Your task to perform on an android device: What is the news today? Image 0: 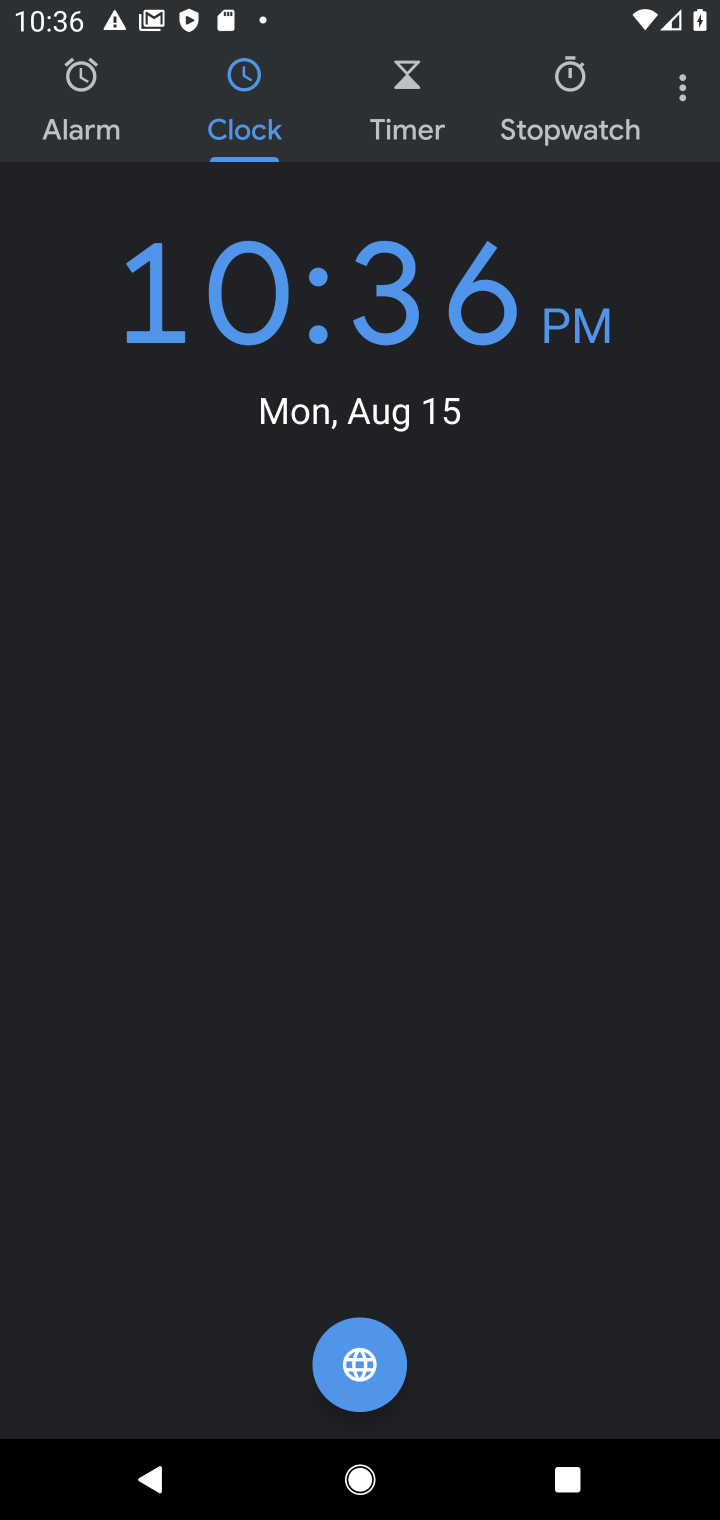
Step 0: press home button
Your task to perform on an android device: What is the news today? Image 1: 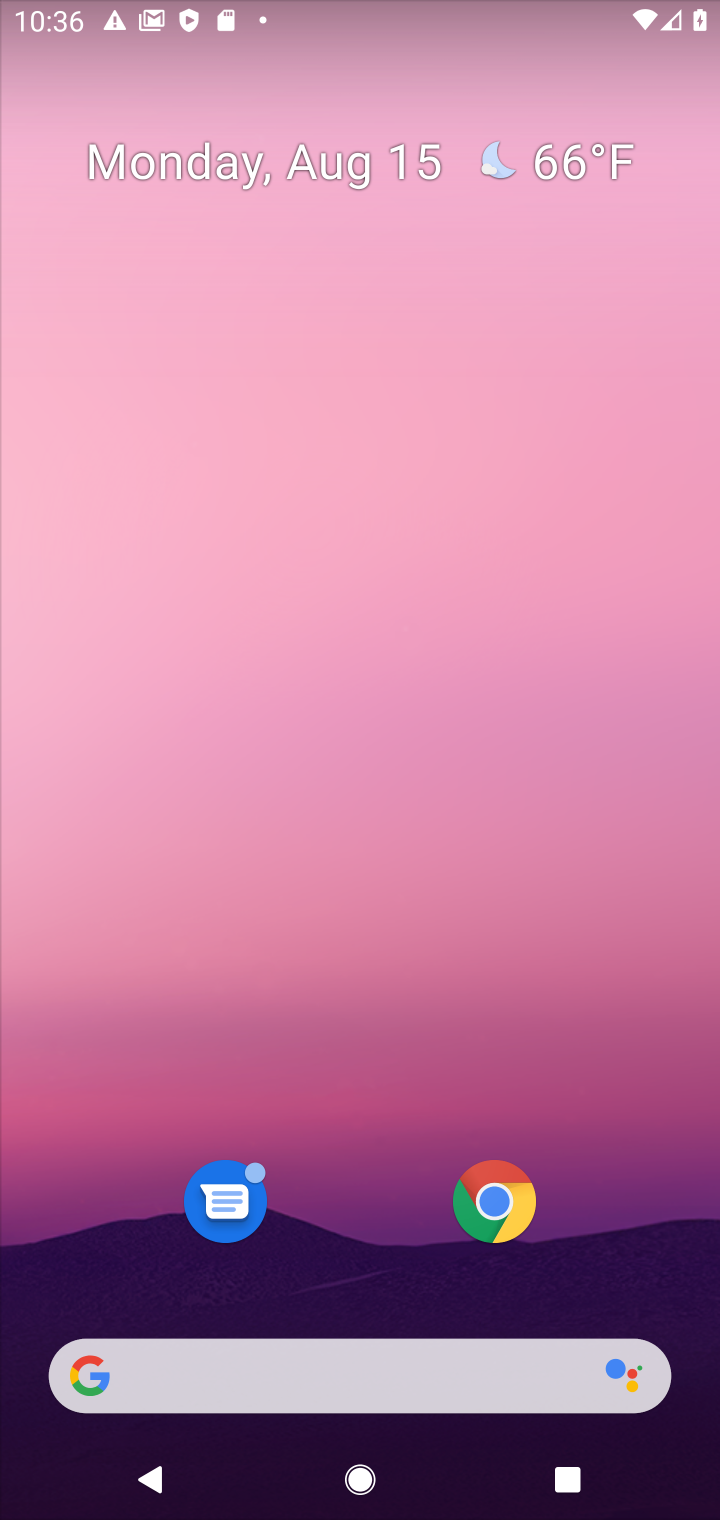
Step 1: drag from (349, 537) to (388, 304)
Your task to perform on an android device: What is the news today? Image 2: 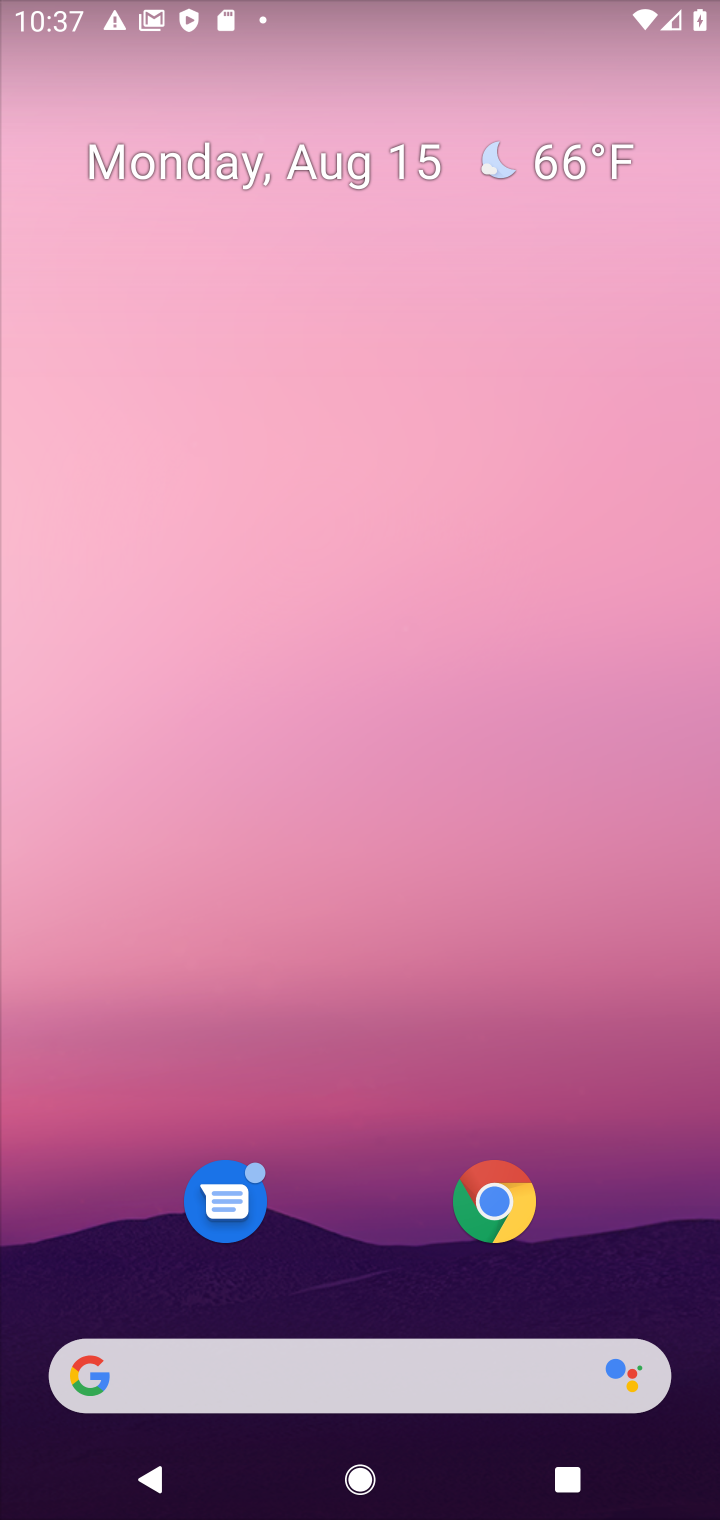
Step 2: drag from (301, 1305) to (341, 198)
Your task to perform on an android device: What is the news today? Image 3: 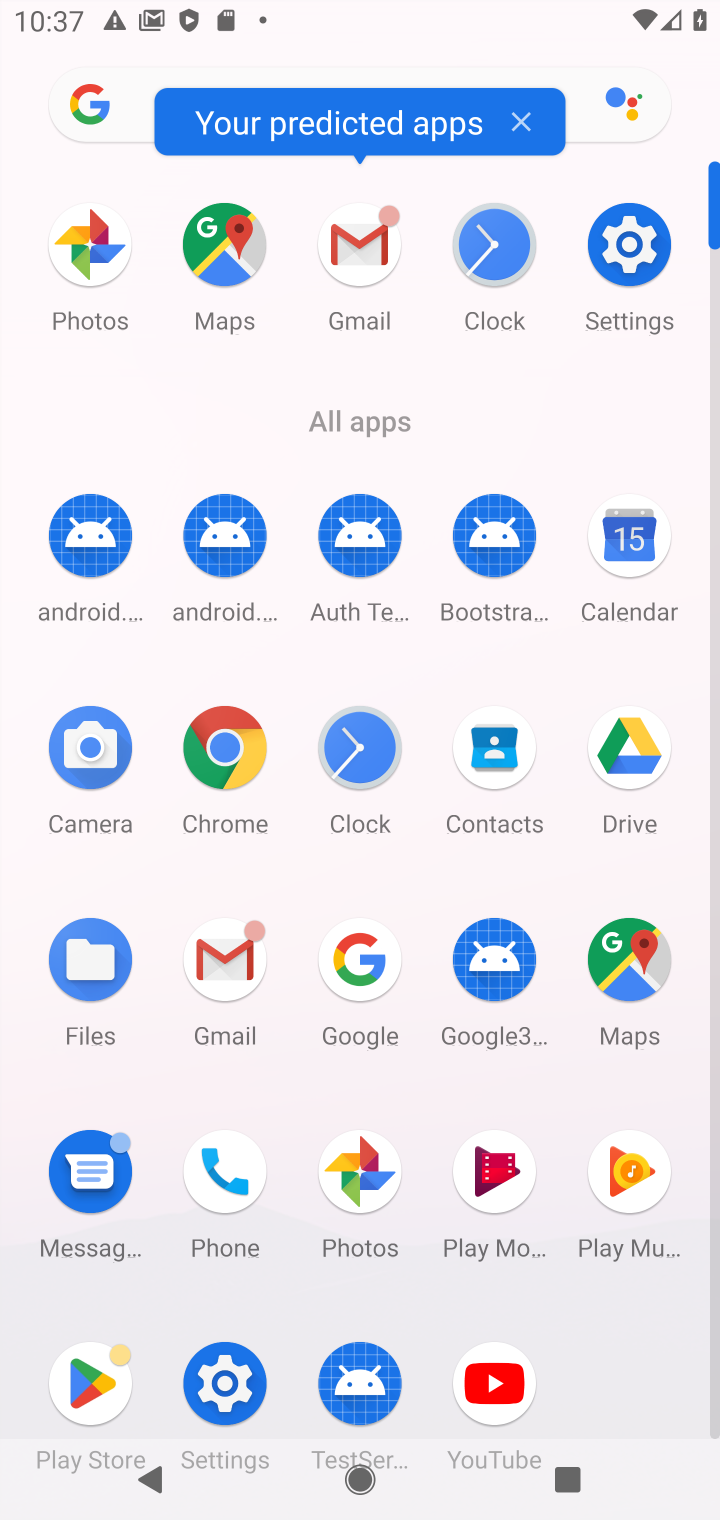
Step 3: click (365, 969)
Your task to perform on an android device: What is the news today? Image 4: 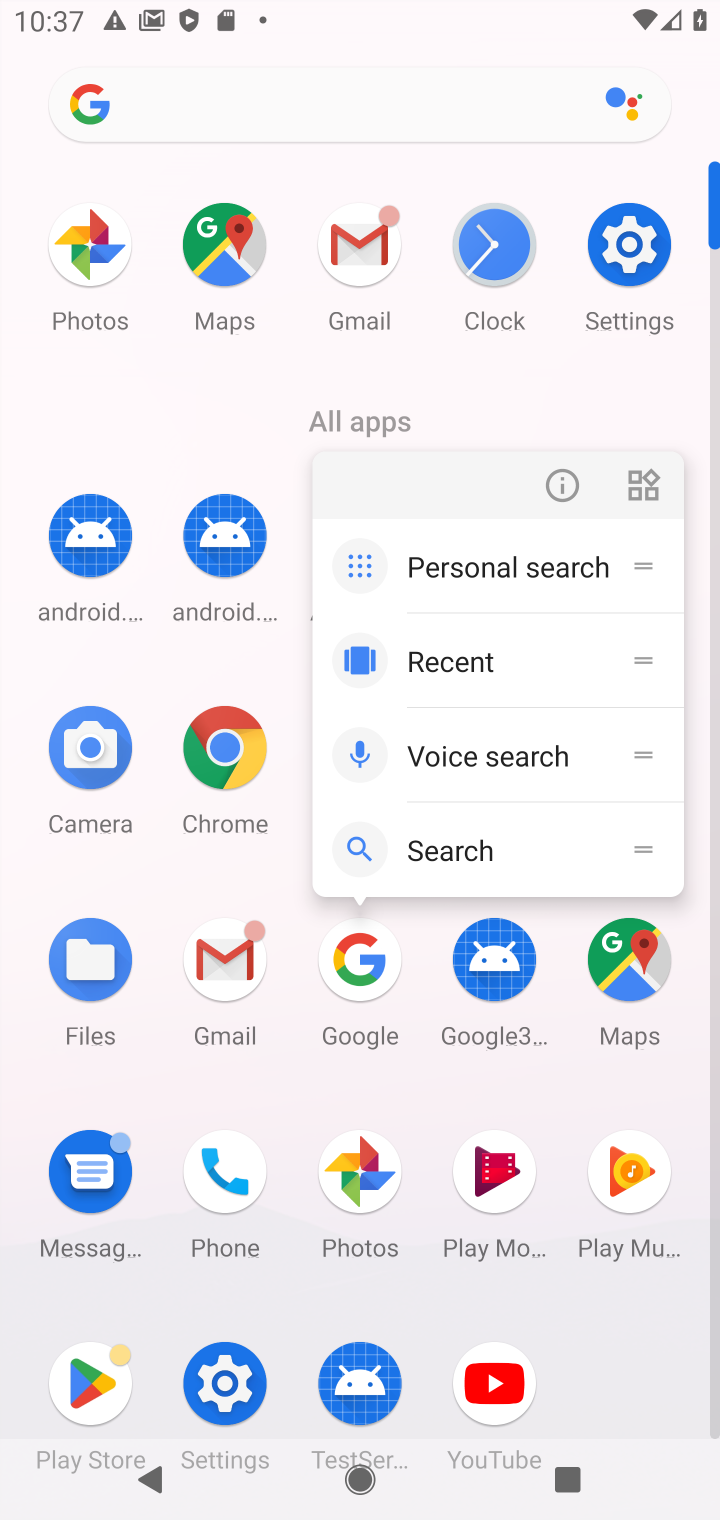
Step 4: click (351, 975)
Your task to perform on an android device: What is the news today? Image 5: 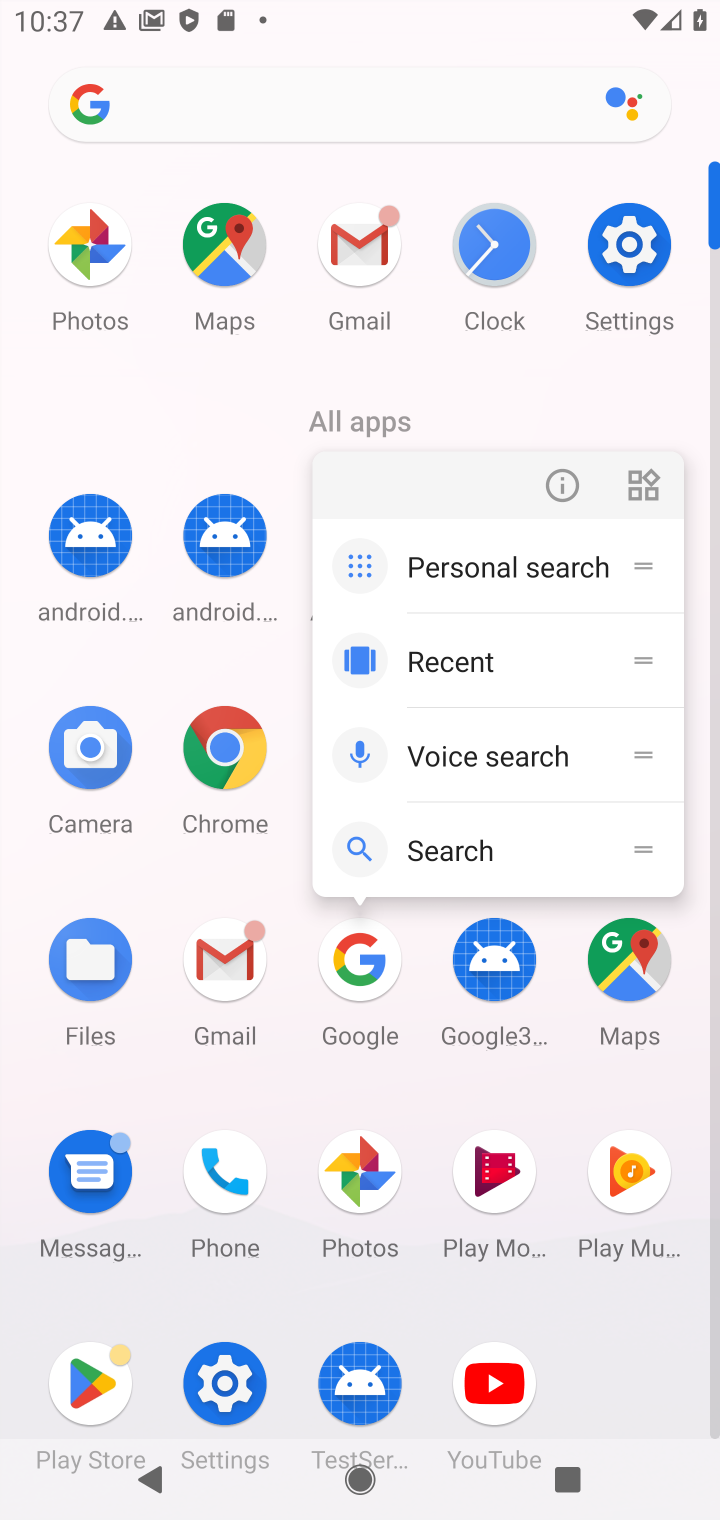
Step 5: click (351, 975)
Your task to perform on an android device: What is the news today? Image 6: 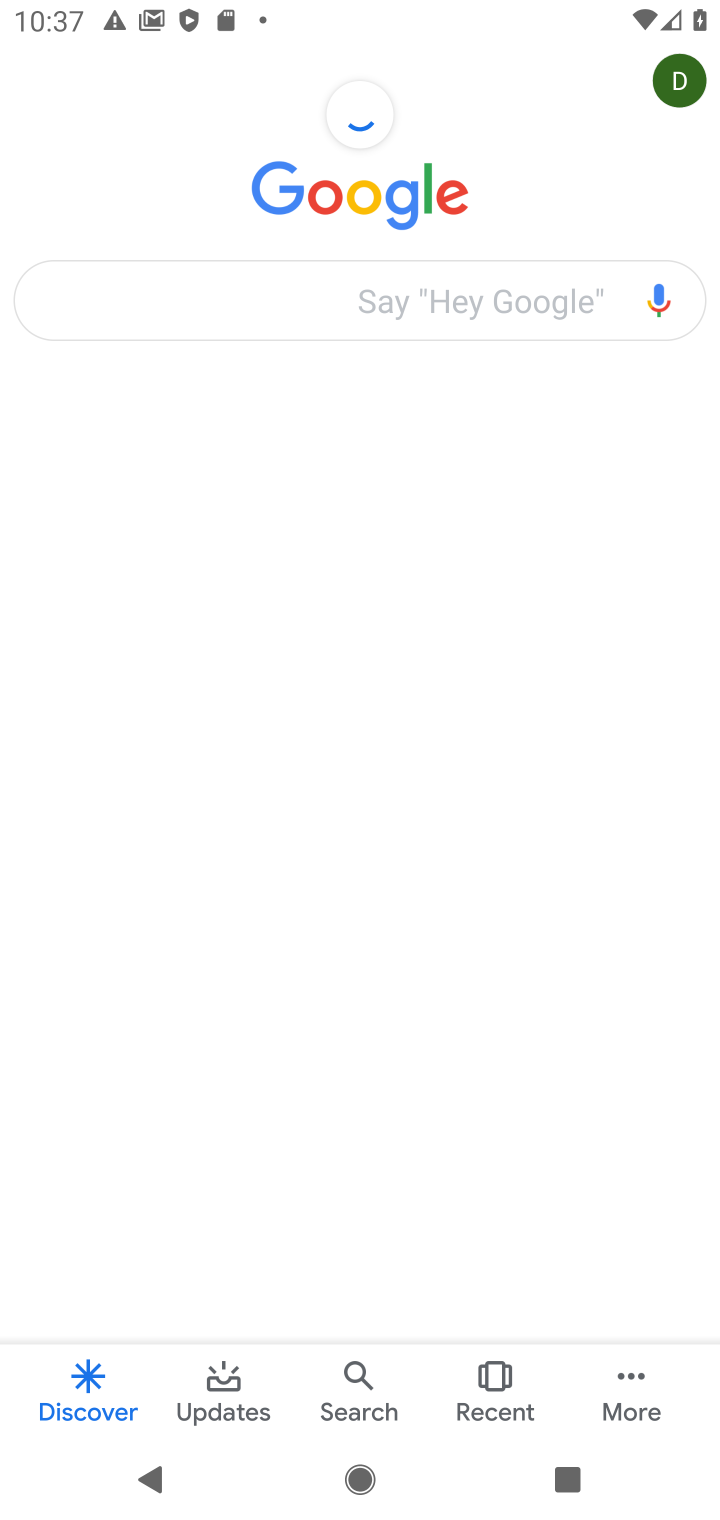
Step 6: click (319, 302)
Your task to perform on an android device: What is the news today? Image 7: 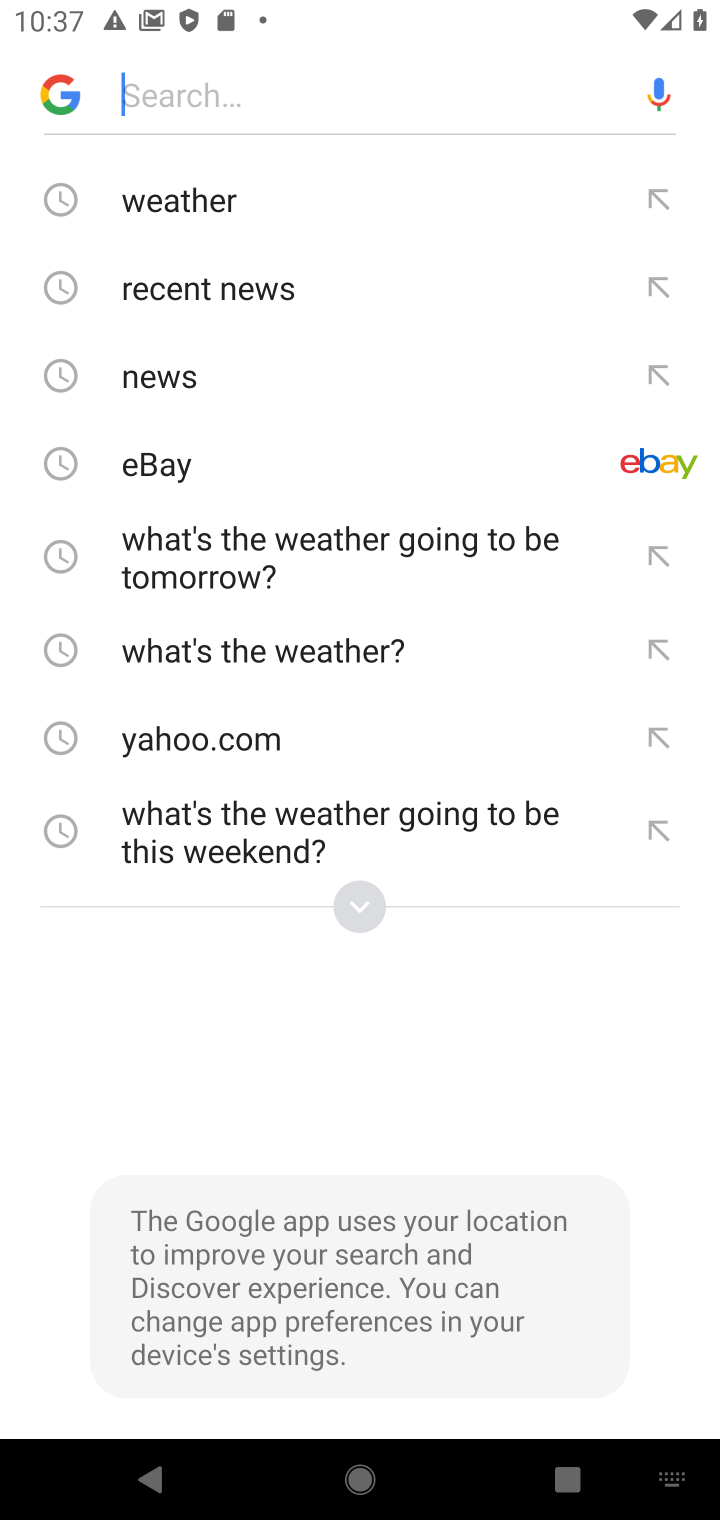
Step 7: click (178, 375)
Your task to perform on an android device: What is the news today? Image 8: 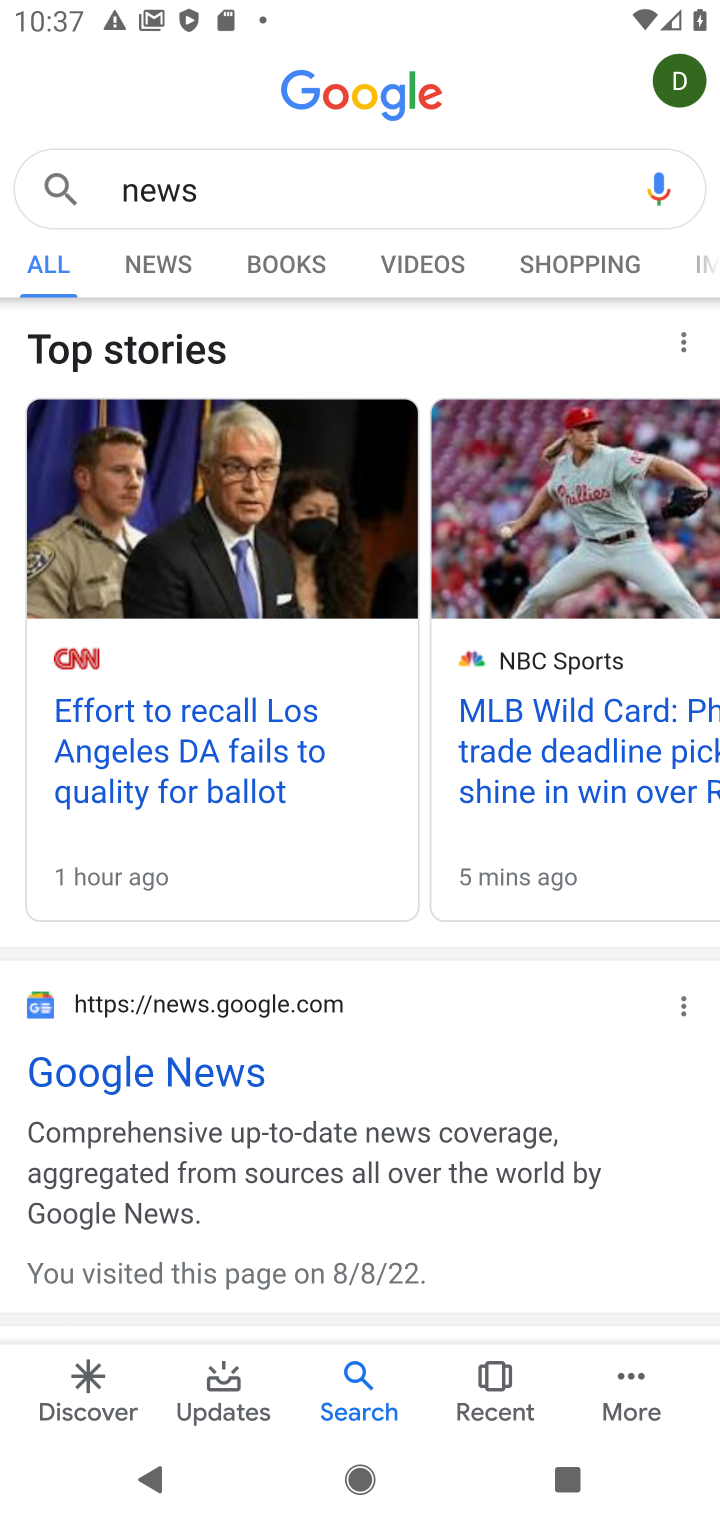
Step 8: task complete